Your task to perform on an android device: move an email to a new category in the gmail app Image 0: 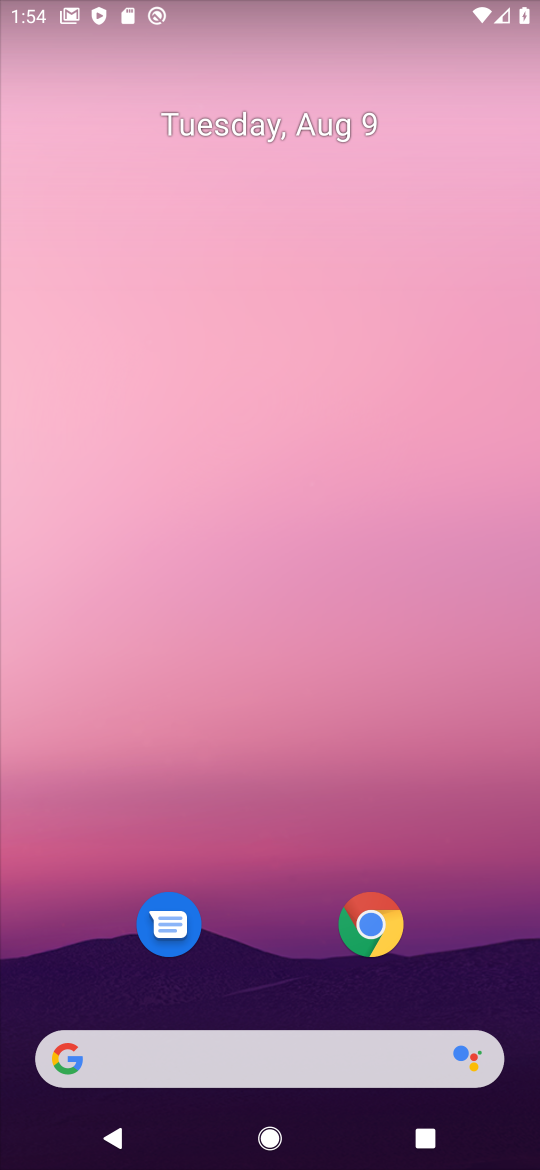
Step 0: drag from (517, 1090) to (293, 273)
Your task to perform on an android device: move an email to a new category in the gmail app Image 1: 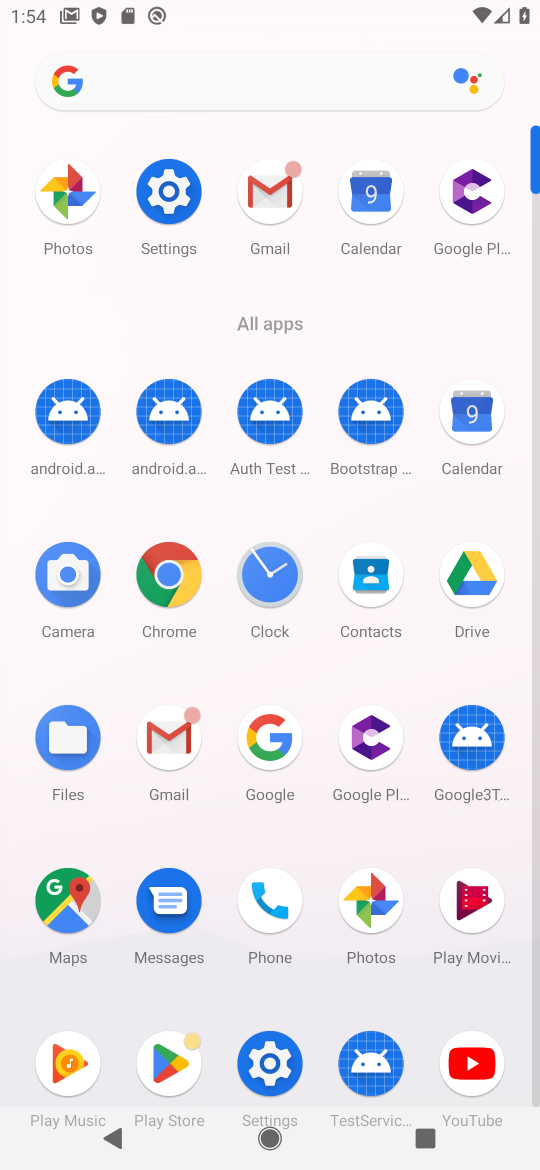
Step 1: click (288, 186)
Your task to perform on an android device: move an email to a new category in the gmail app Image 2: 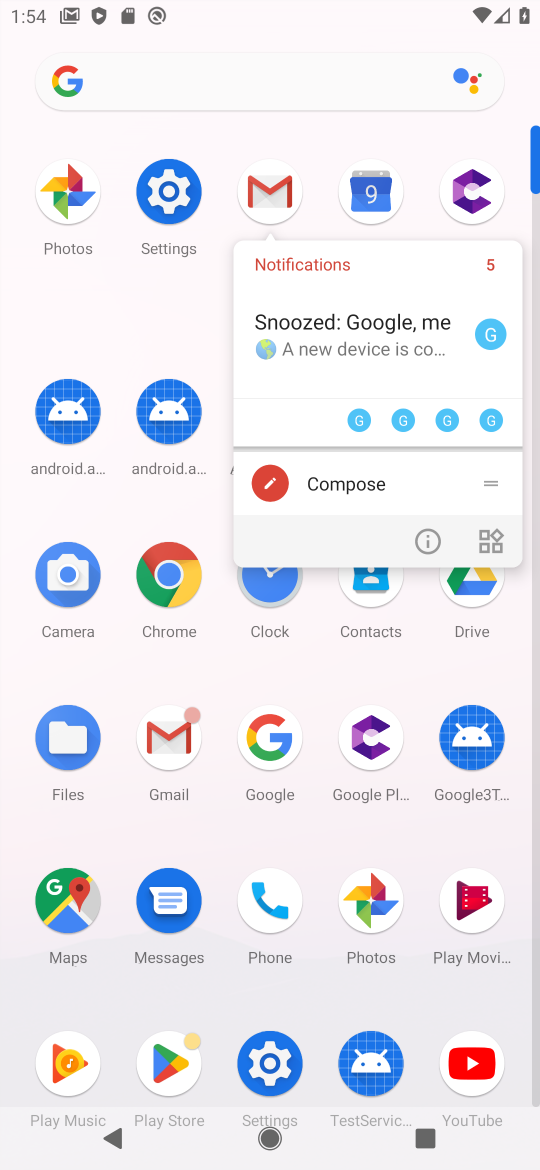
Step 2: click (272, 193)
Your task to perform on an android device: move an email to a new category in the gmail app Image 3: 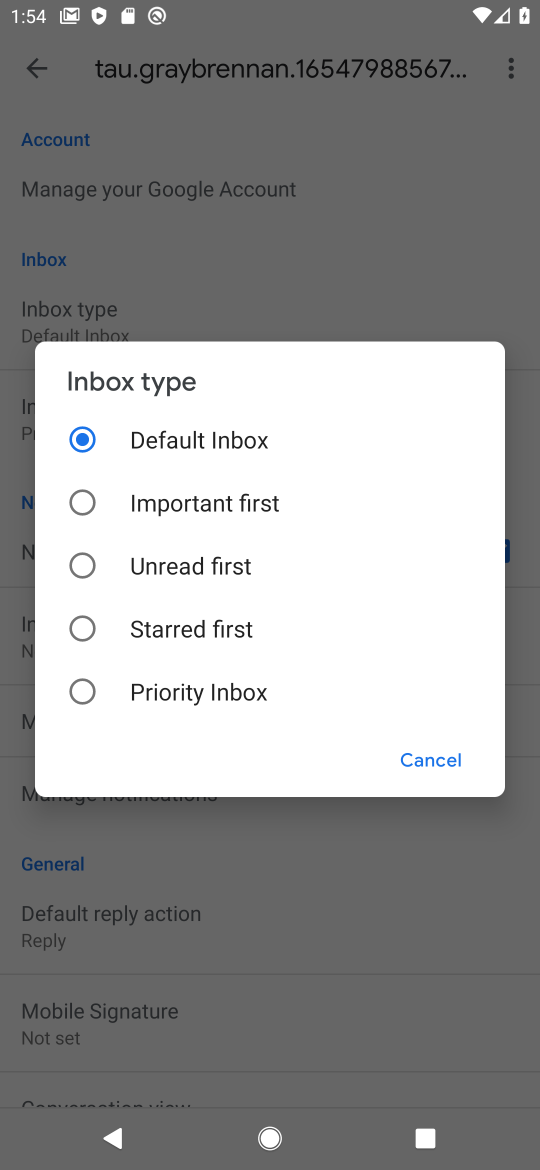
Step 3: click (452, 752)
Your task to perform on an android device: move an email to a new category in the gmail app Image 4: 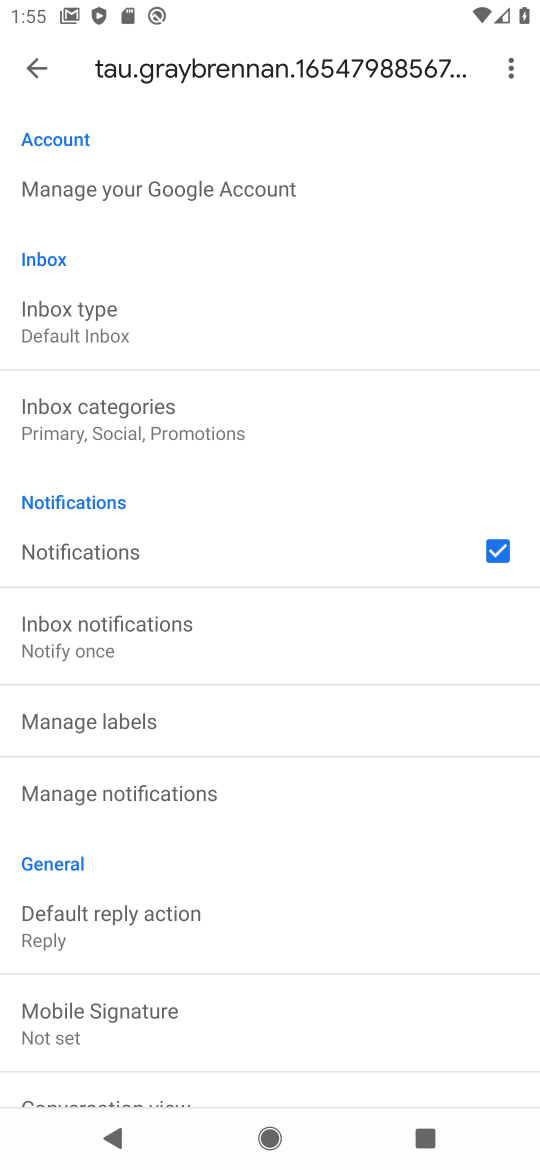
Step 4: click (24, 64)
Your task to perform on an android device: move an email to a new category in the gmail app Image 5: 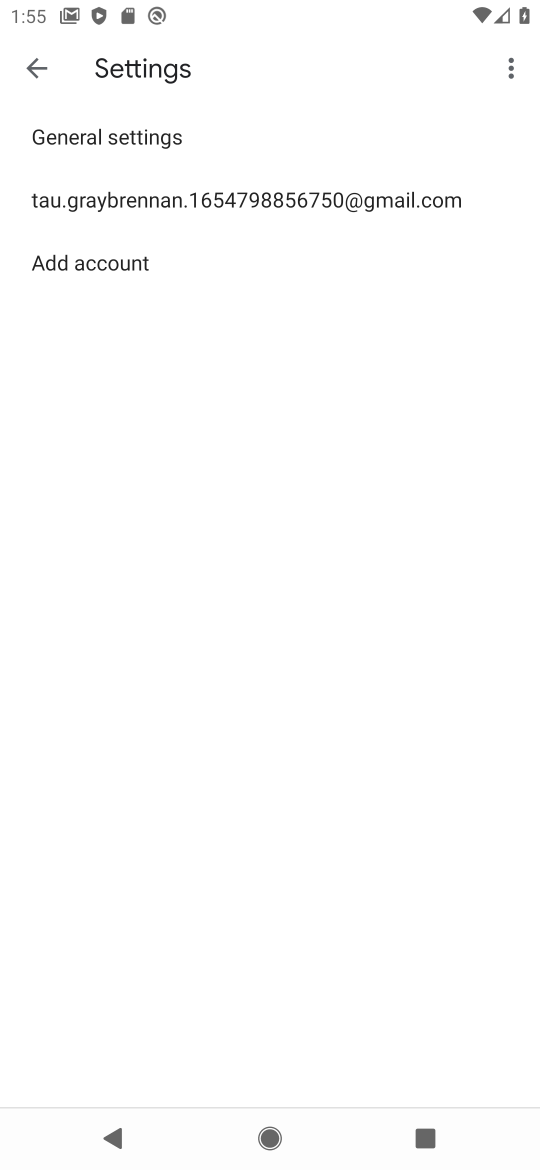
Step 5: click (24, 64)
Your task to perform on an android device: move an email to a new category in the gmail app Image 6: 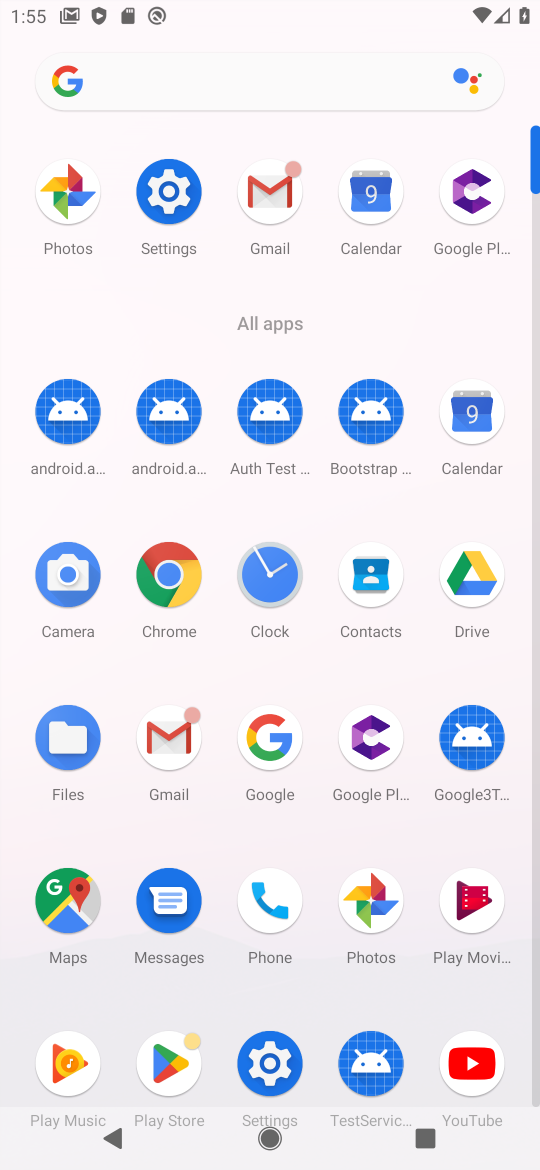
Step 6: click (257, 182)
Your task to perform on an android device: move an email to a new category in the gmail app Image 7: 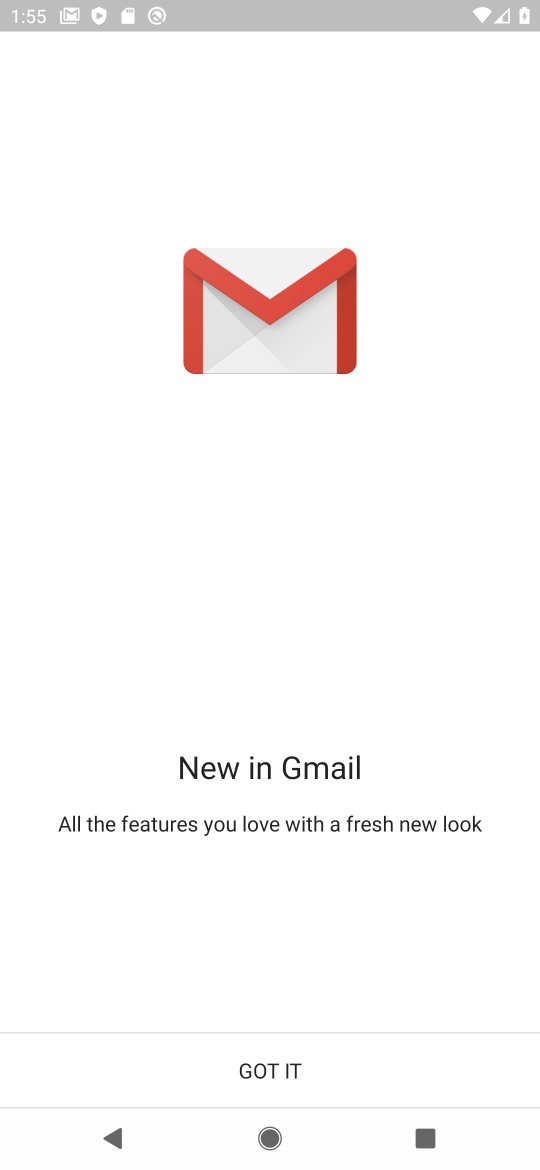
Step 7: click (269, 1068)
Your task to perform on an android device: move an email to a new category in the gmail app Image 8: 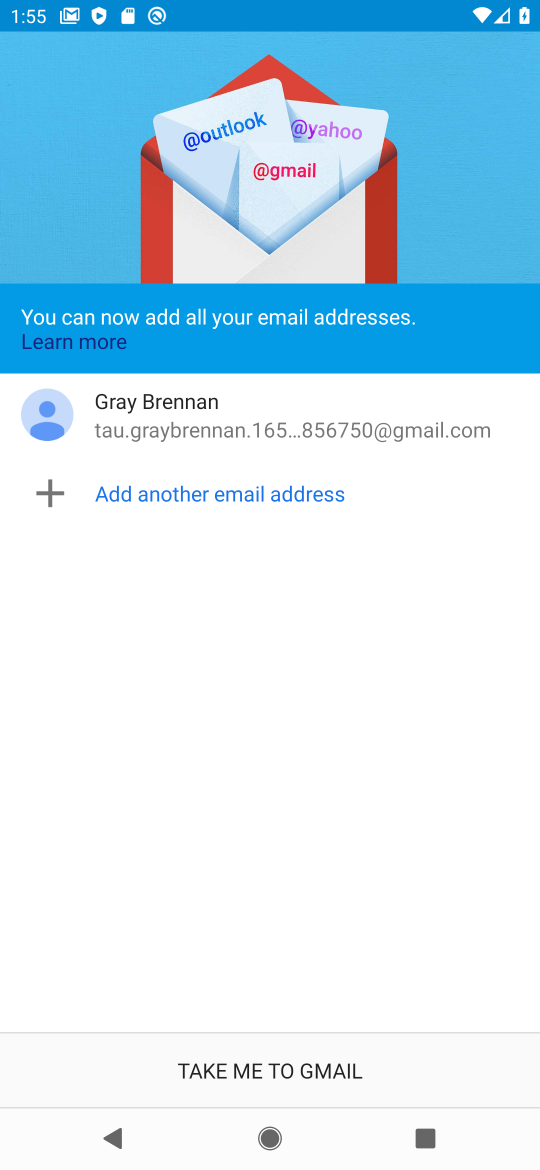
Step 8: click (268, 1061)
Your task to perform on an android device: move an email to a new category in the gmail app Image 9: 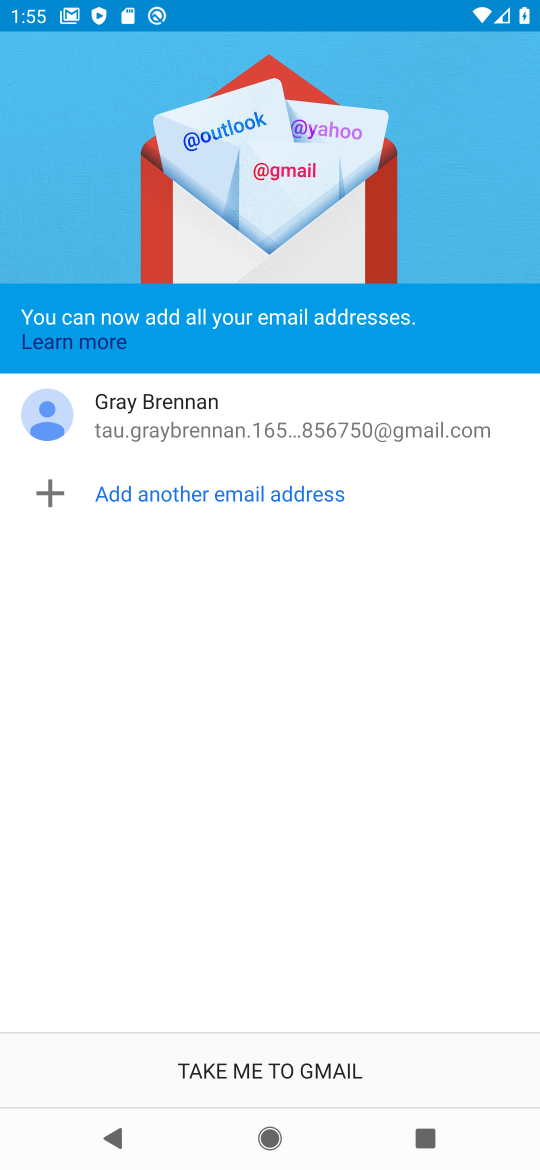
Step 9: click (268, 1061)
Your task to perform on an android device: move an email to a new category in the gmail app Image 10: 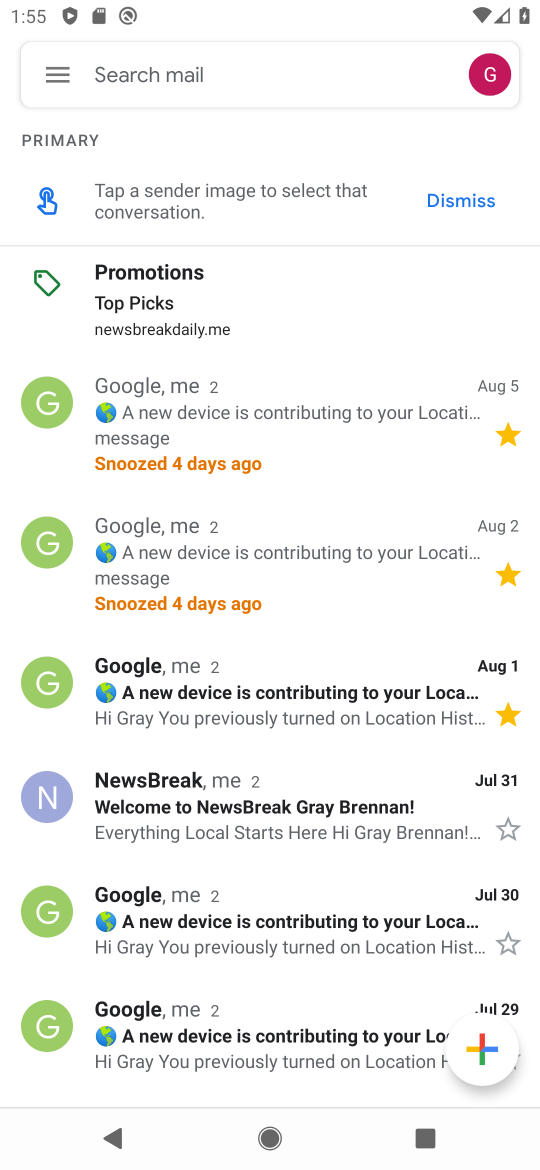
Step 10: click (500, 830)
Your task to perform on an android device: move an email to a new category in the gmail app Image 11: 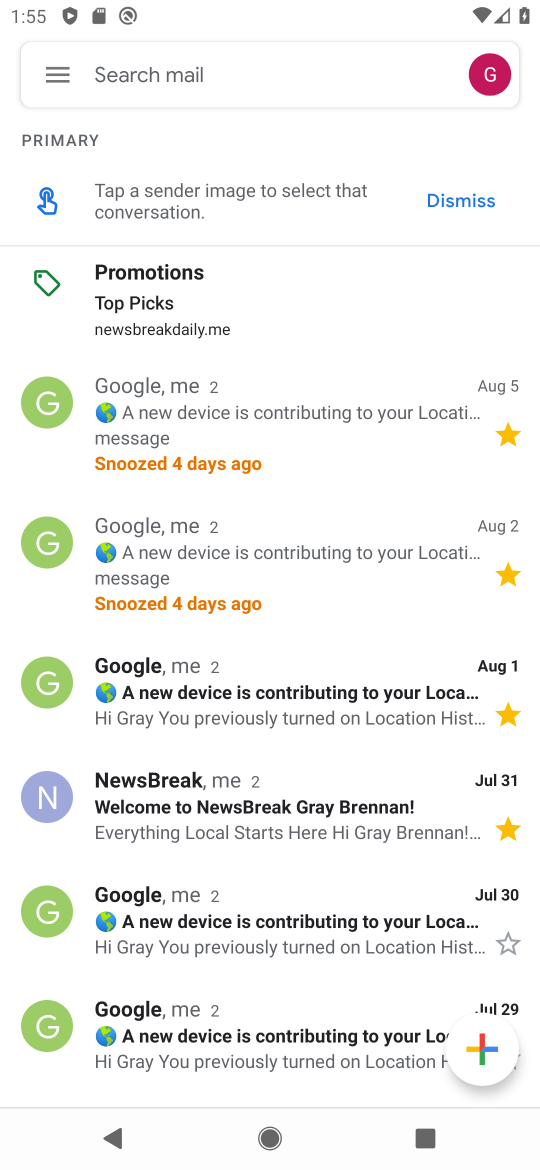
Step 11: task complete